Your task to perform on an android device: What's the weather going to be this weekend? Image 0: 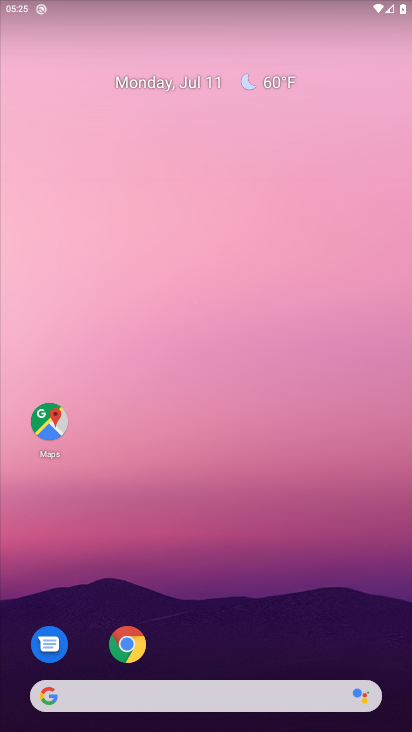
Step 0: drag from (227, 682) to (256, 410)
Your task to perform on an android device: What's the weather going to be this weekend? Image 1: 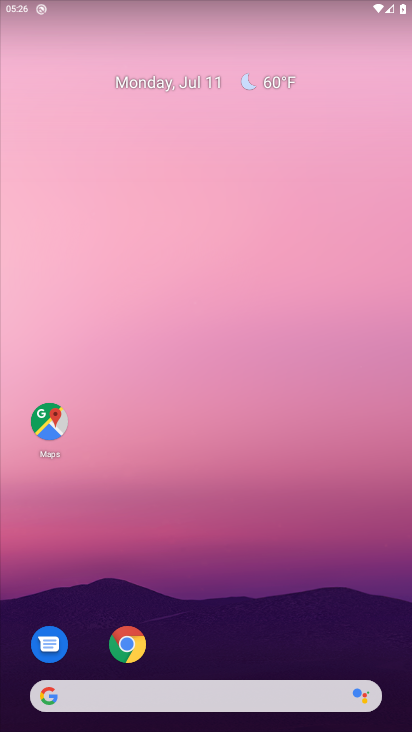
Step 1: drag from (284, 683) to (321, 308)
Your task to perform on an android device: What's the weather going to be this weekend? Image 2: 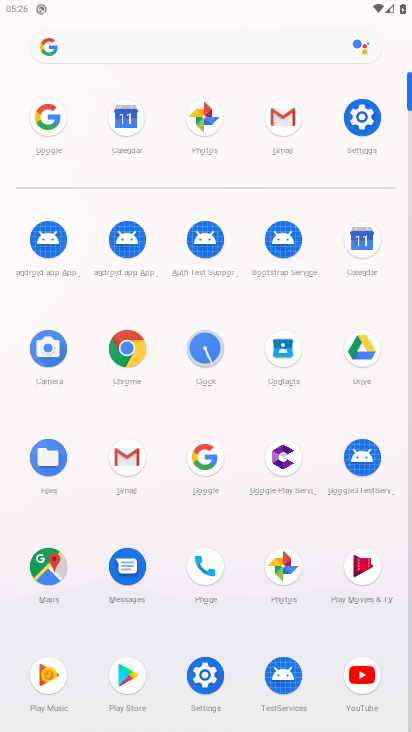
Step 2: click (204, 464)
Your task to perform on an android device: What's the weather going to be this weekend? Image 3: 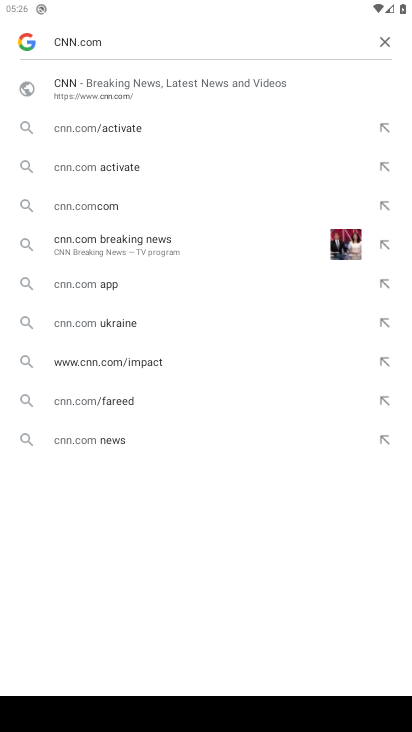
Step 3: click (387, 39)
Your task to perform on an android device: What's the weather going to be this weekend? Image 4: 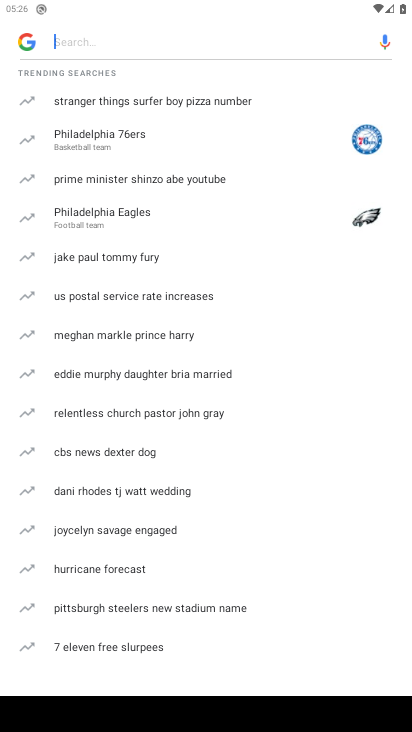
Step 4: click (119, 42)
Your task to perform on an android device: What's the weather going to be this weekend? Image 5: 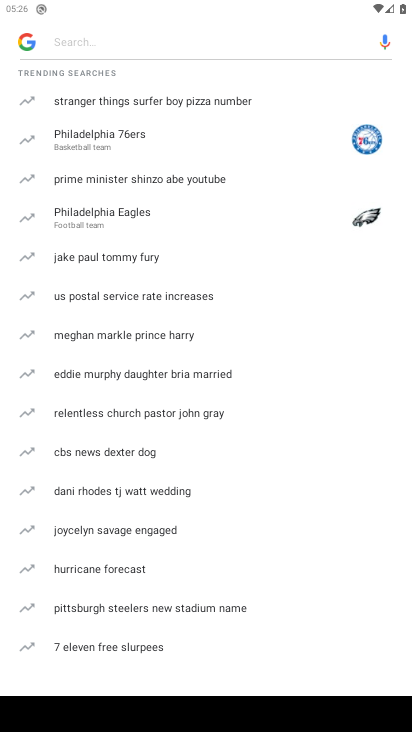
Step 5: type "What's the weather going to be this weekend?"
Your task to perform on an android device: What's the weather going to be this weekend? Image 6: 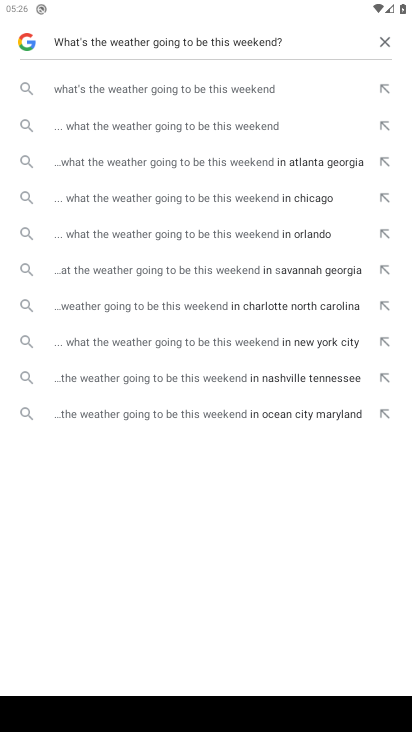
Step 6: click (171, 92)
Your task to perform on an android device: What's the weather going to be this weekend? Image 7: 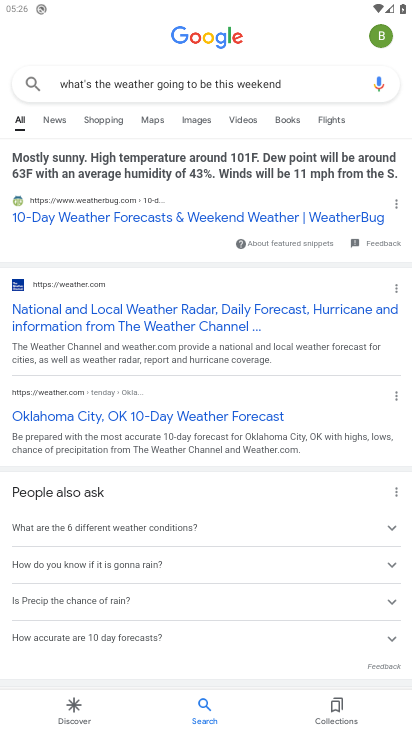
Step 7: click (154, 217)
Your task to perform on an android device: What's the weather going to be this weekend? Image 8: 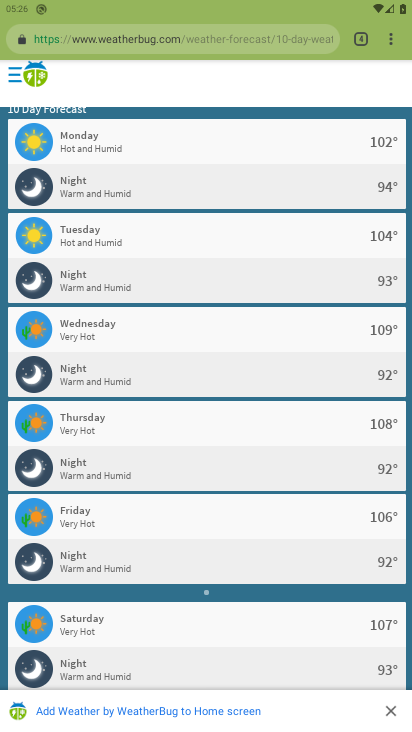
Step 8: task complete